Your task to perform on an android device: change your default location settings in chrome Image 0: 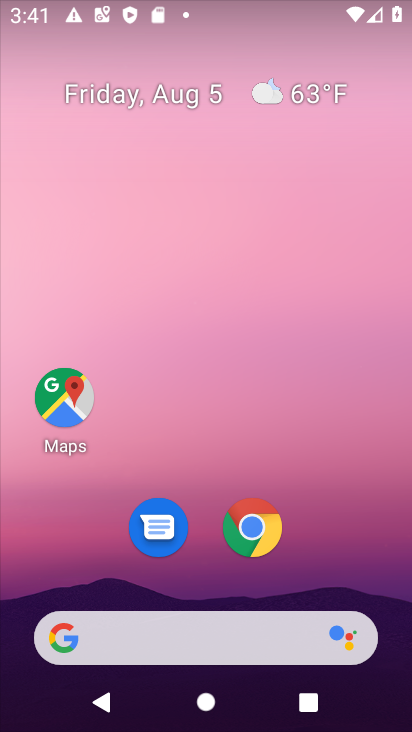
Step 0: click (255, 525)
Your task to perform on an android device: change your default location settings in chrome Image 1: 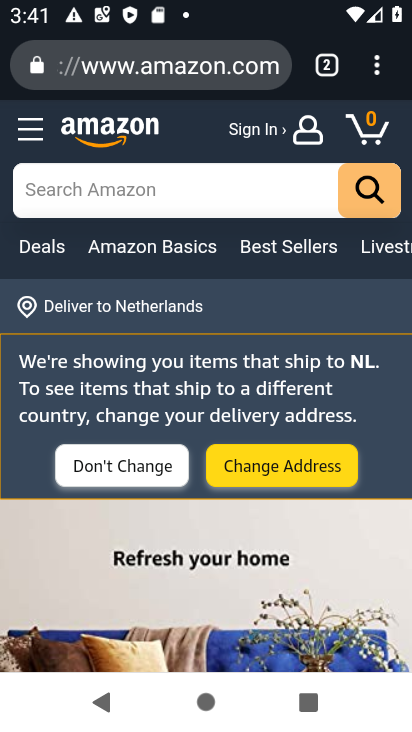
Step 1: click (378, 73)
Your task to perform on an android device: change your default location settings in chrome Image 2: 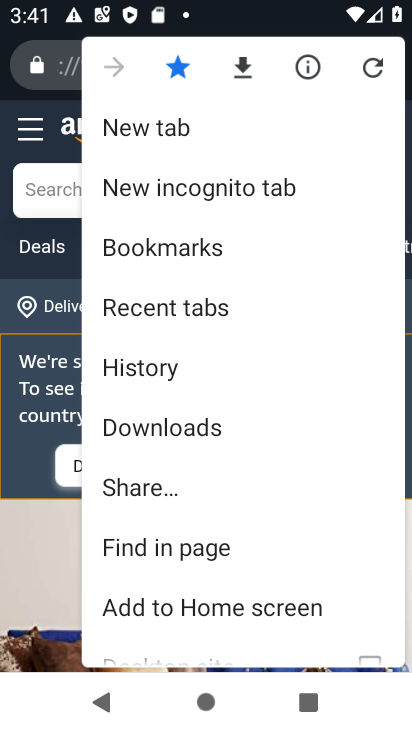
Step 2: drag from (179, 615) to (186, 363)
Your task to perform on an android device: change your default location settings in chrome Image 3: 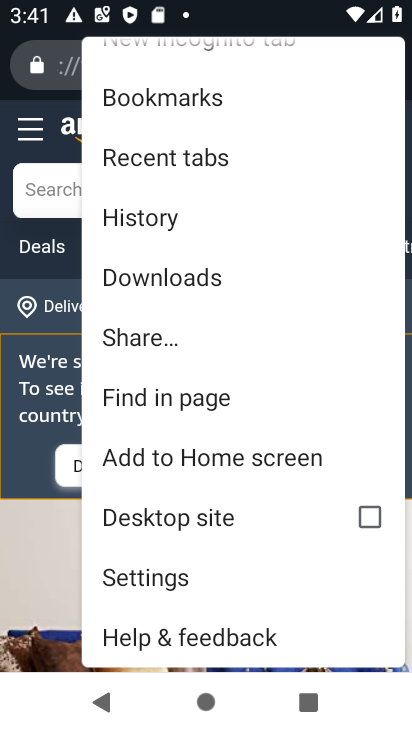
Step 3: click (142, 579)
Your task to perform on an android device: change your default location settings in chrome Image 4: 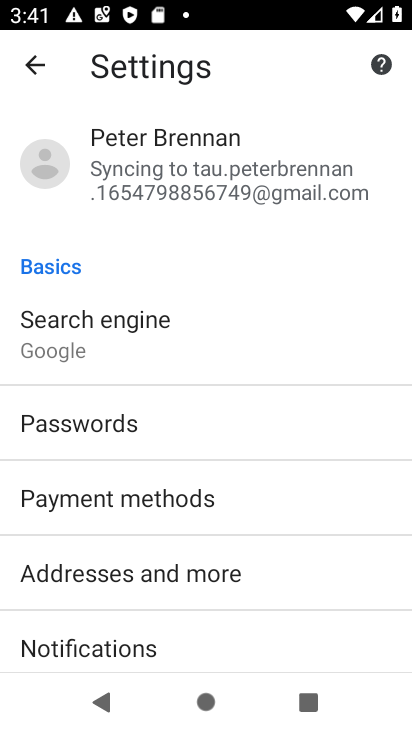
Step 4: drag from (104, 610) to (107, 509)
Your task to perform on an android device: change your default location settings in chrome Image 5: 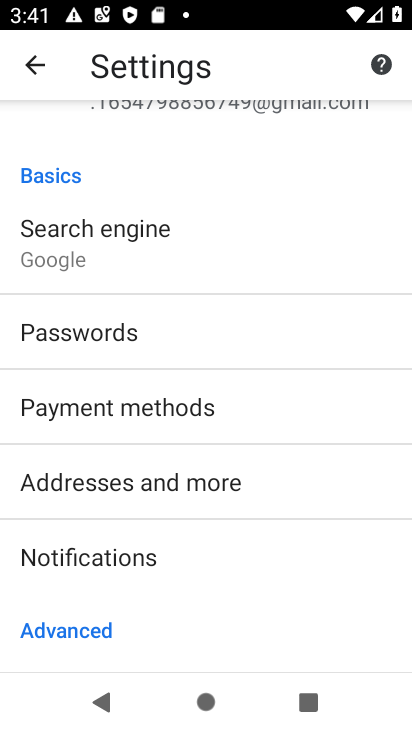
Step 5: drag from (118, 586) to (125, 351)
Your task to perform on an android device: change your default location settings in chrome Image 6: 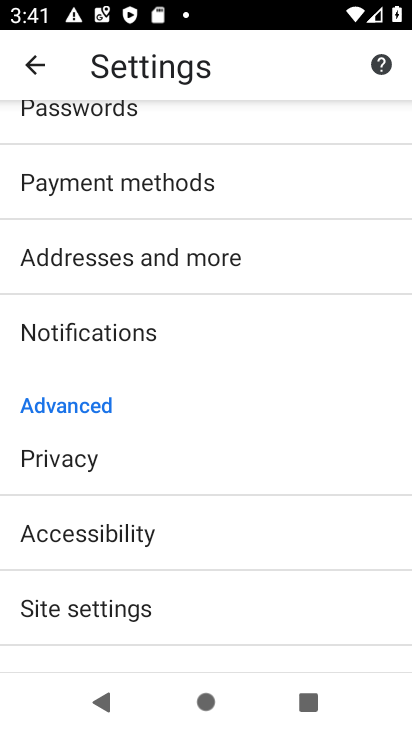
Step 6: drag from (102, 594) to (99, 379)
Your task to perform on an android device: change your default location settings in chrome Image 7: 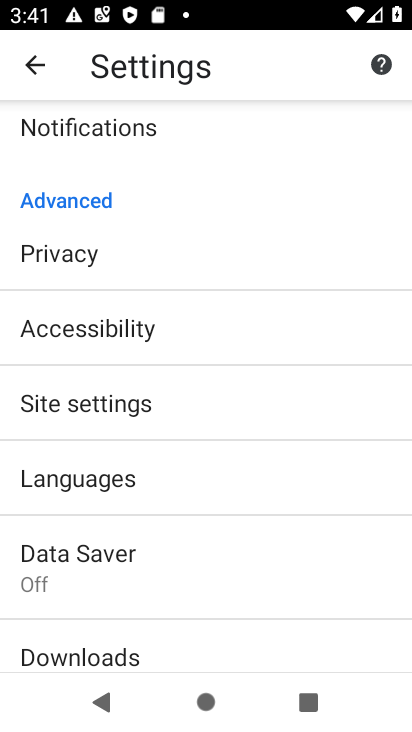
Step 7: click (90, 399)
Your task to perform on an android device: change your default location settings in chrome Image 8: 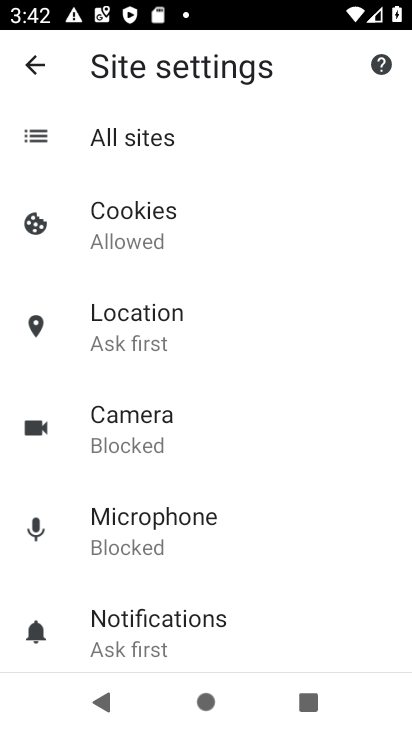
Step 8: drag from (149, 621) to (143, 508)
Your task to perform on an android device: change your default location settings in chrome Image 9: 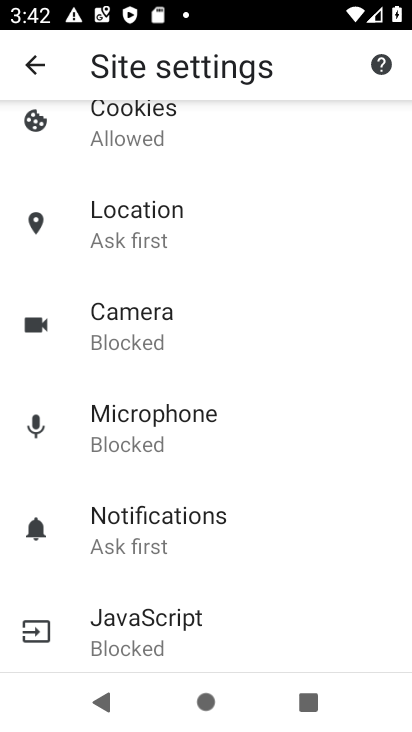
Step 9: drag from (152, 358) to (152, 396)
Your task to perform on an android device: change your default location settings in chrome Image 10: 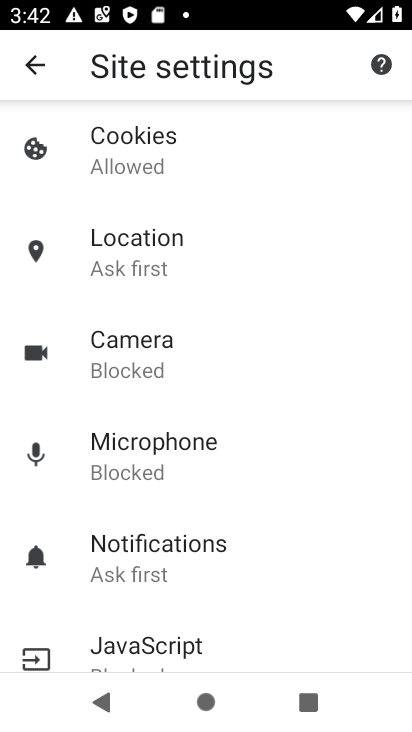
Step 10: click (134, 244)
Your task to perform on an android device: change your default location settings in chrome Image 11: 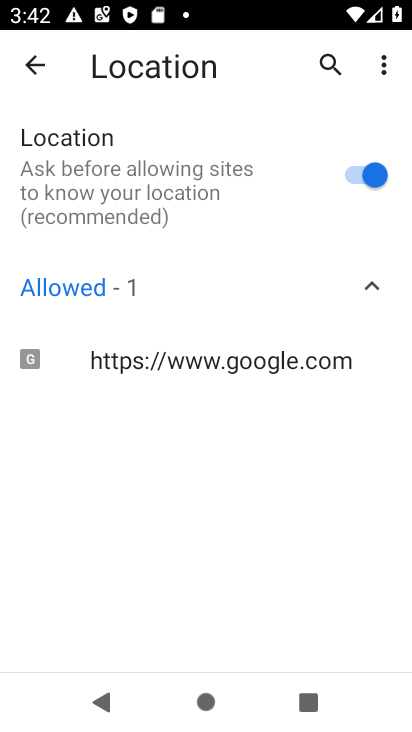
Step 11: click (361, 172)
Your task to perform on an android device: change your default location settings in chrome Image 12: 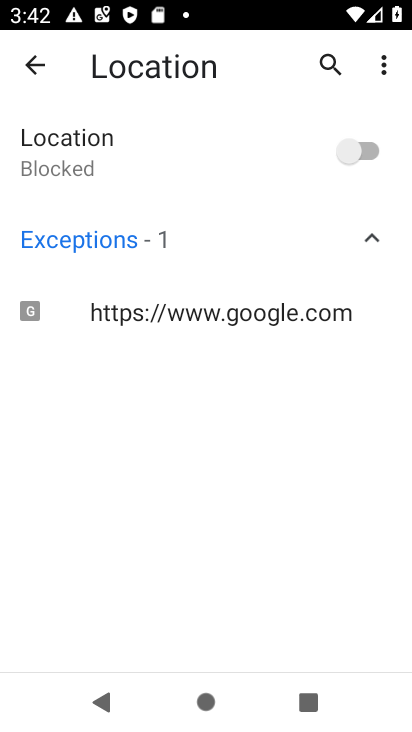
Step 12: task complete